Your task to perform on an android device: toggle sleep mode Image 0: 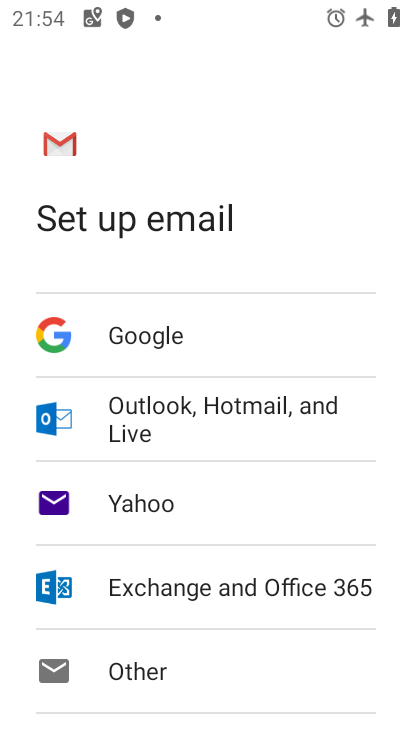
Step 0: press home button
Your task to perform on an android device: toggle sleep mode Image 1: 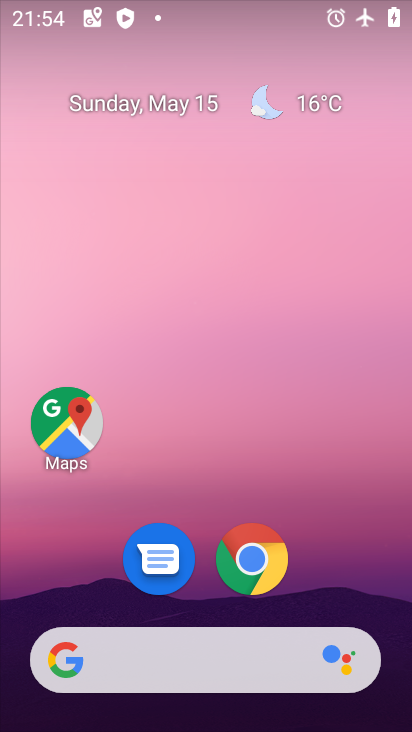
Step 1: drag from (214, 426) to (191, 16)
Your task to perform on an android device: toggle sleep mode Image 2: 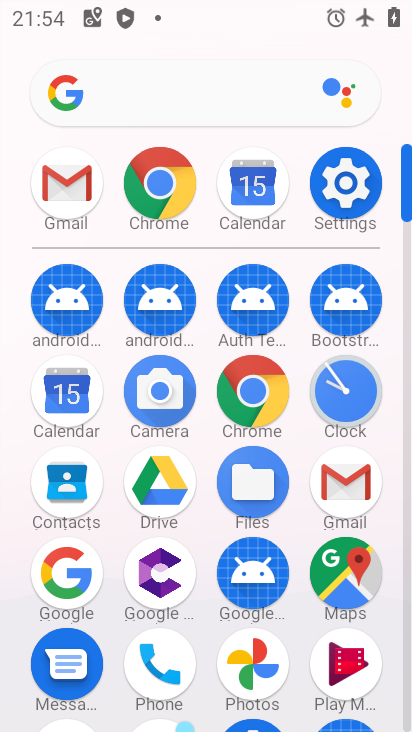
Step 2: click (340, 178)
Your task to perform on an android device: toggle sleep mode Image 3: 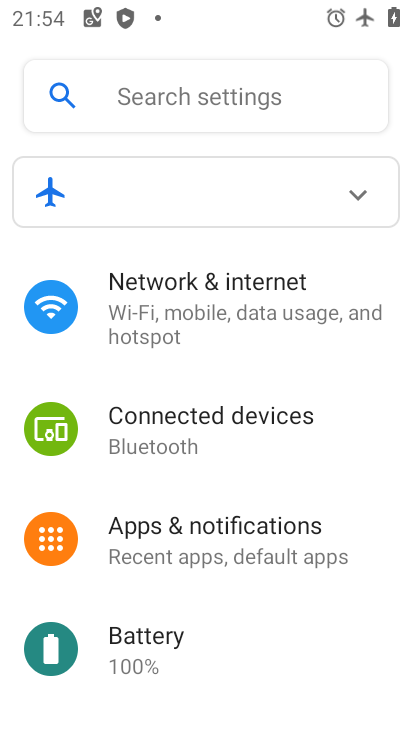
Step 3: click (121, 651)
Your task to perform on an android device: toggle sleep mode Image 4: 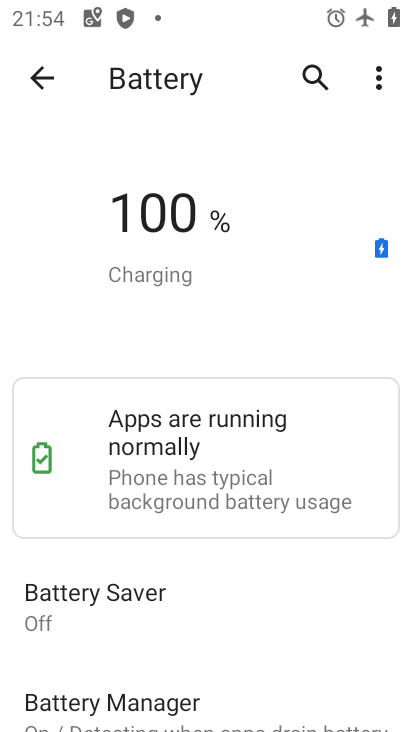
Step 4: task complete